Your task to perform on an android device: check the backup settings in the google photos Image 0: 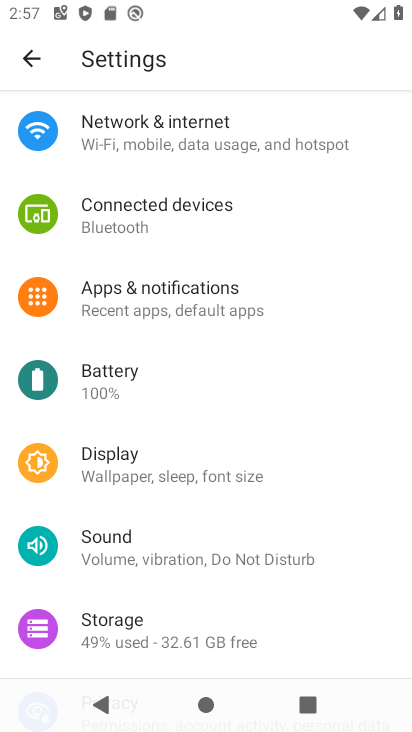
Step 0: press home button
Your task to perform on an android device: check the backup settings in the google photos Image 1: 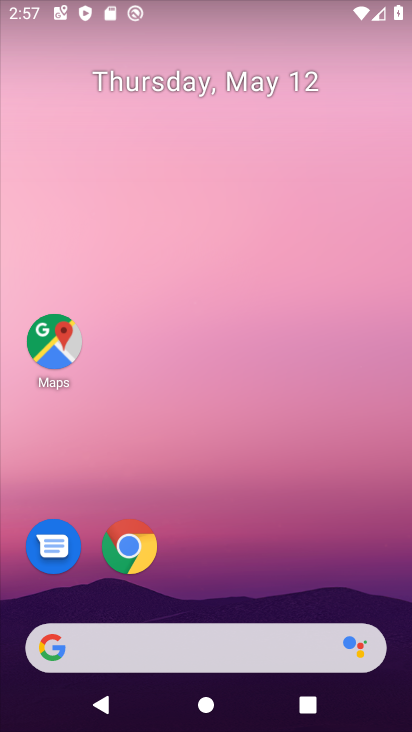
Step 1: drag from (209, 579) to (209, 271)
Your task to perform on an android device: check the backup settings in the google photos Image 2: 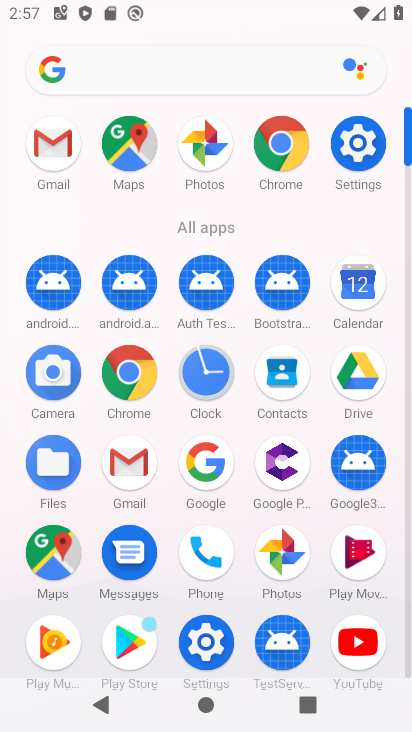
Step 2: click (280, 551)
Your task to perform on an android device: check the backup settings in the google photos Image 3: 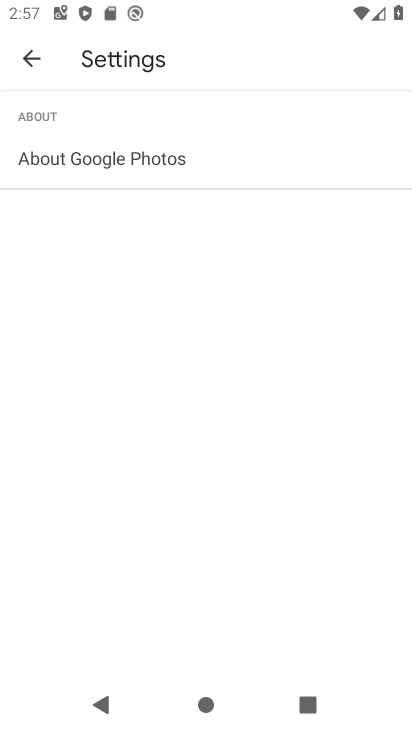
Step 3: click (34, 65)
Your task to perform on an android device: check the backup settings in the google photos Image 4: 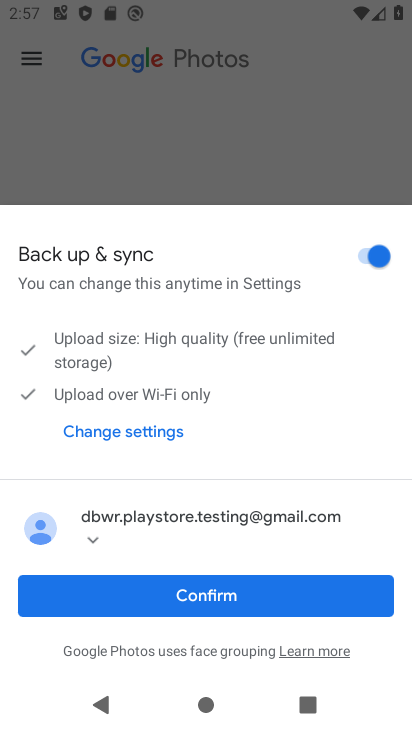
Step 4: click (228, 601)
Your task to perform on an android device: check the backup settings in the google photos Image 5: 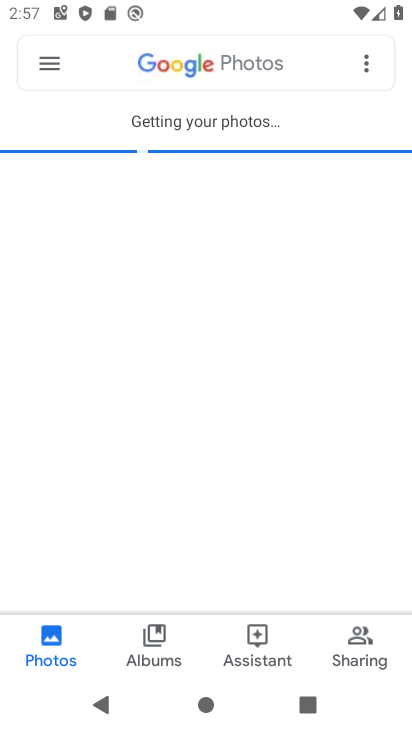
Step 5: click (24, 55)
Your task to perform on an android device: check the backup settings in the google photos Image 6: 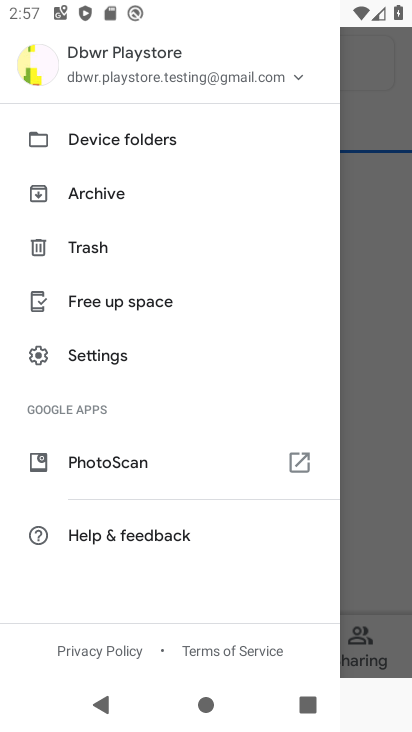
Step 6: click (136, 354)
Your task to perform on an android device: check the backup settings in the google photos Image 7: 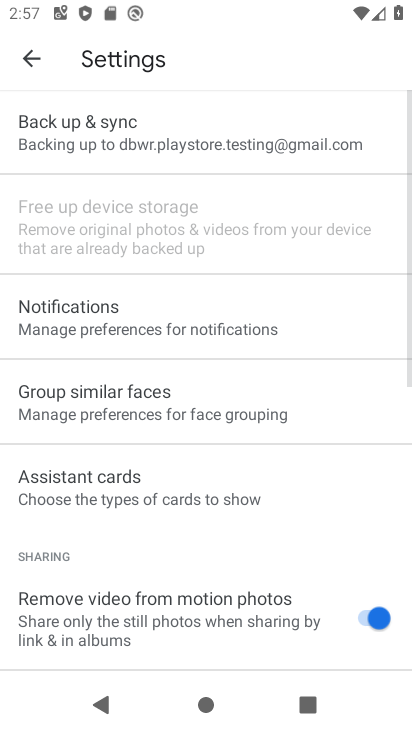
Step 7: click (106, 122)
Your task to perform on an android device: check the backup settings in the google photos Image 8: 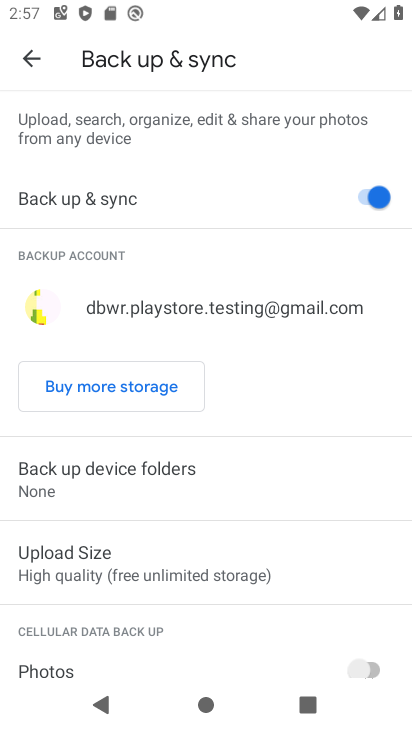
Step 8: task complete